Your task to perform on an android device: search for starred emails in the gmail app Image 0: 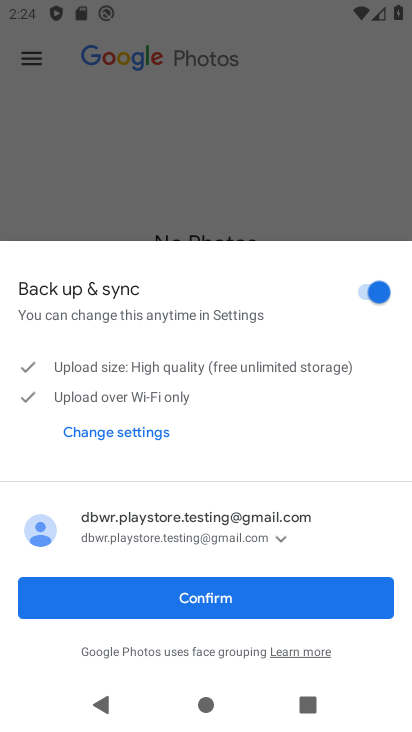
Step 0: press home button
Your task to perform on an android device: search for starred emails in the gmail app Image 1: 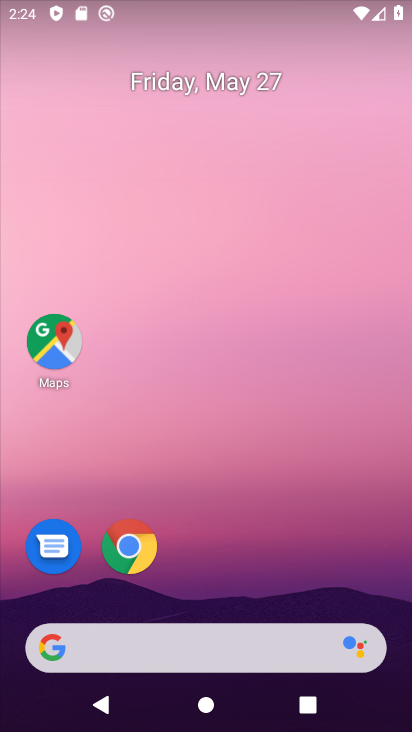
Step 1: drag from (209, 602) to (228, 155)
Your task to perform on an android device: search for starred emails in the gmail app Image 2: 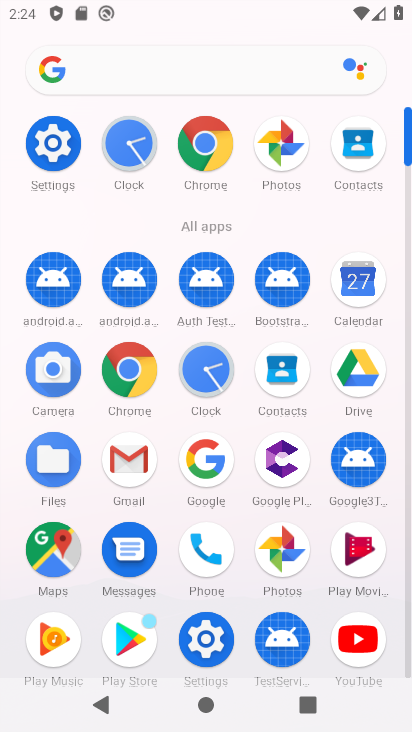
Step 2: click (132, 457)
Your task to perform on an android device: search for starred emails in the gmail app Image 3: 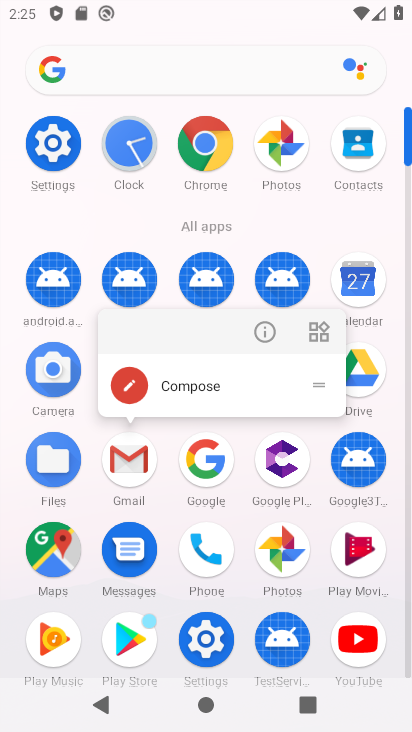
Step 3: click (120, 458)
Your task to perform on an android device: search for starred emails in the gmail app Image 4: 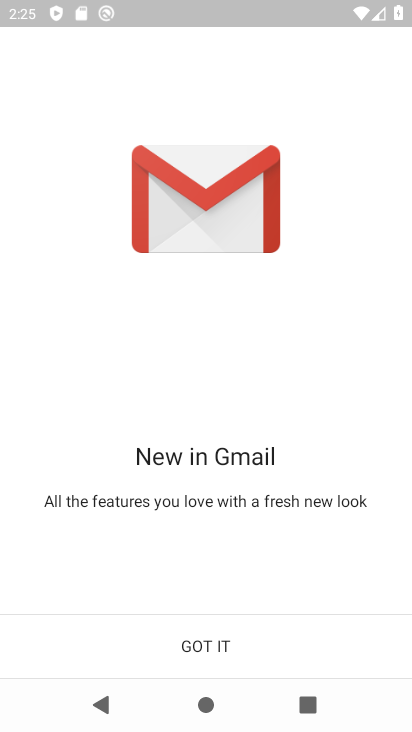
Step 4: click (209, 650)
Your task to perform on an android device: search for starred emails in the gmail app Image 5: 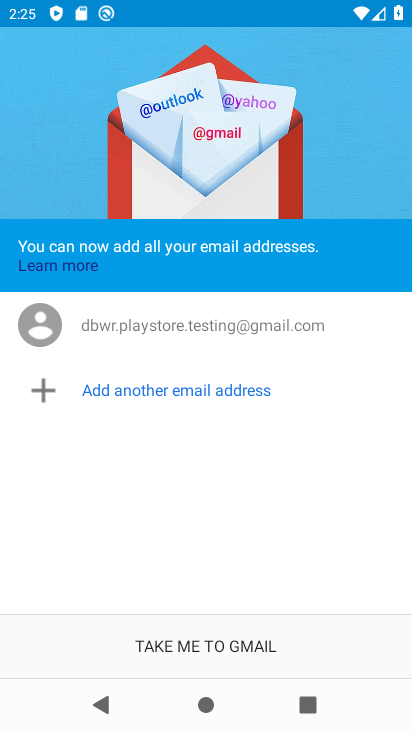
Step 5: click (215, 633)
Your task to perform on an android device: search for starred emails in the gmail app Image 6: 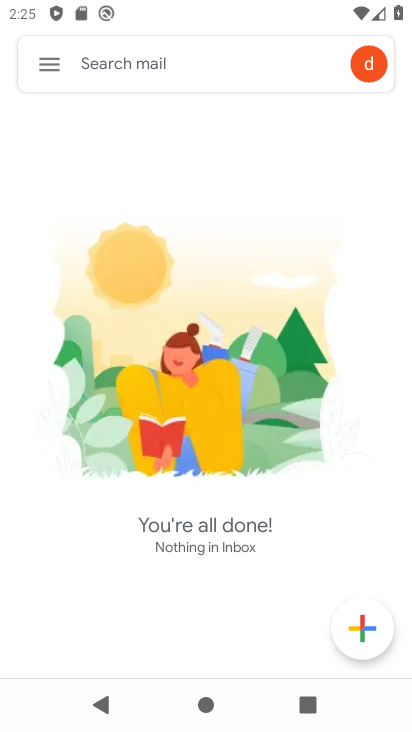
Step 6: click (58, 60)
Your task to perform on an android device: search for starred emails in the gmail app Image 7: 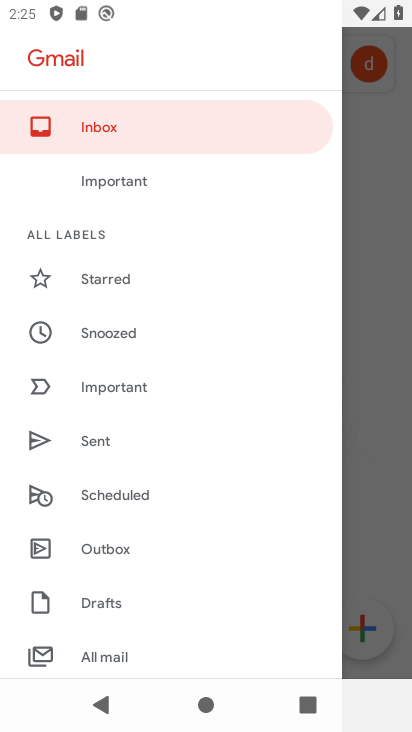
Step 7: click (132, 287)
Your task to perform on an android device: search for starred emails in the gmail app Image 8: 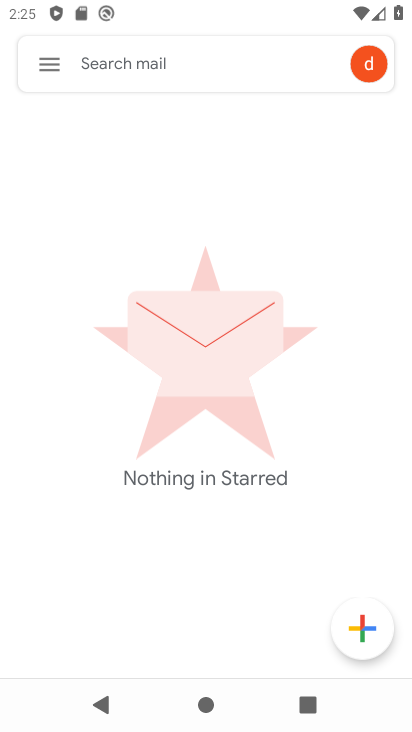
Step 8: task complete